Your task to perform on an android device: Search for "usb-a" on newegg, select the first entry, add it to the cart, then select checkout. Image 0: 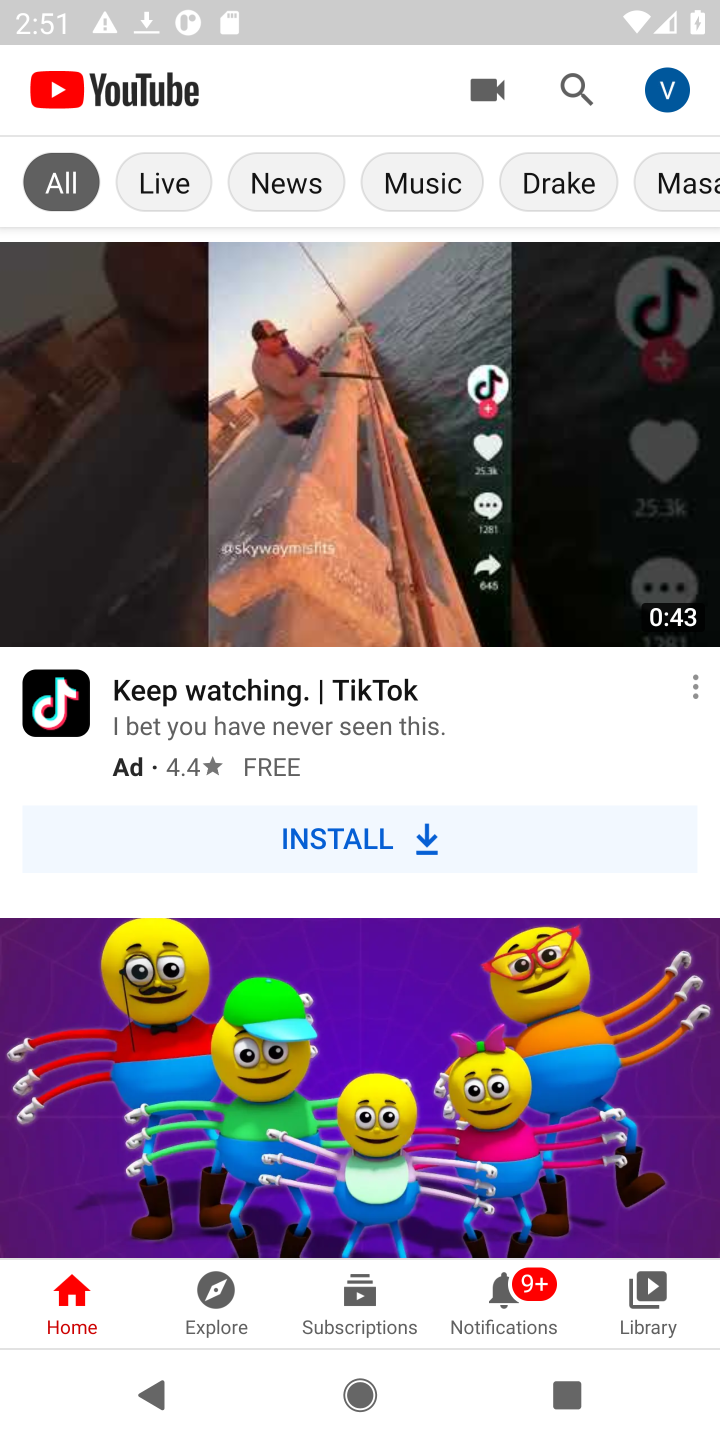
Step 0: press home button
Your task to perform on an android device: Search for "usb-a" on newegg, select the first entry, add it to the cart, then select checkout. Image 1: 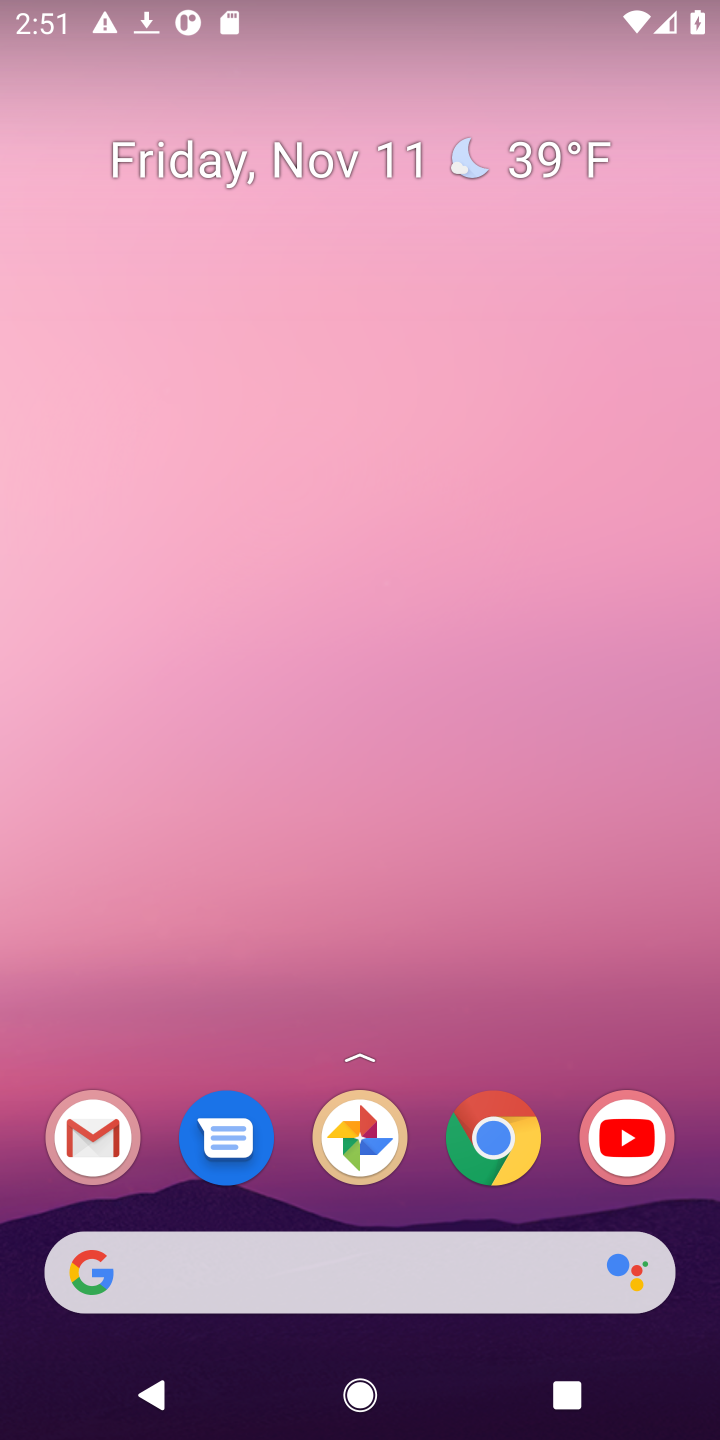
Step 1: click (510, 1141)
Your task to perform on an android device: Search for "usb-a" on newegg, select the first entry, add it to the cart, then select checkout. Image 2: 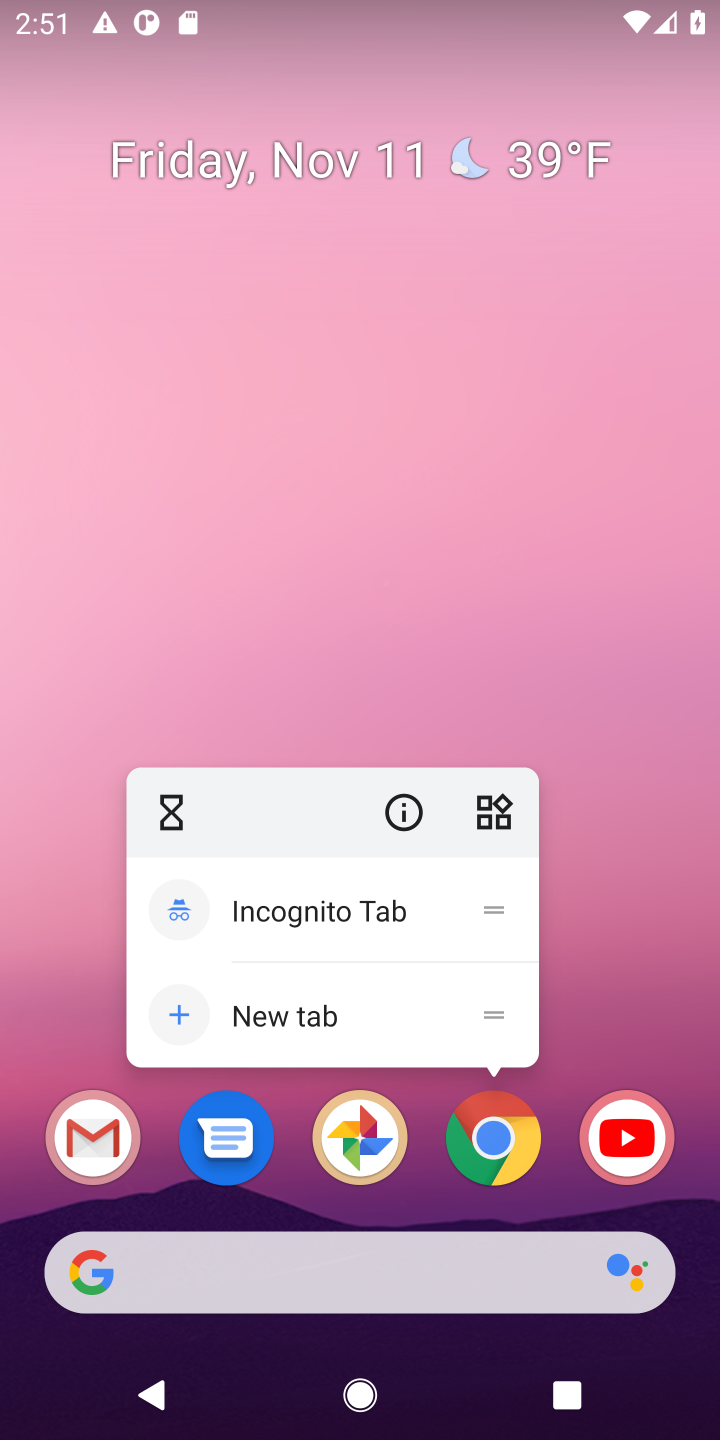
Step 2: click (504, 1144)
Your task to perform on an android device: Search for "usb-a" on newegg, select the first entry, add it to the cart, then select checkout. Image 3: 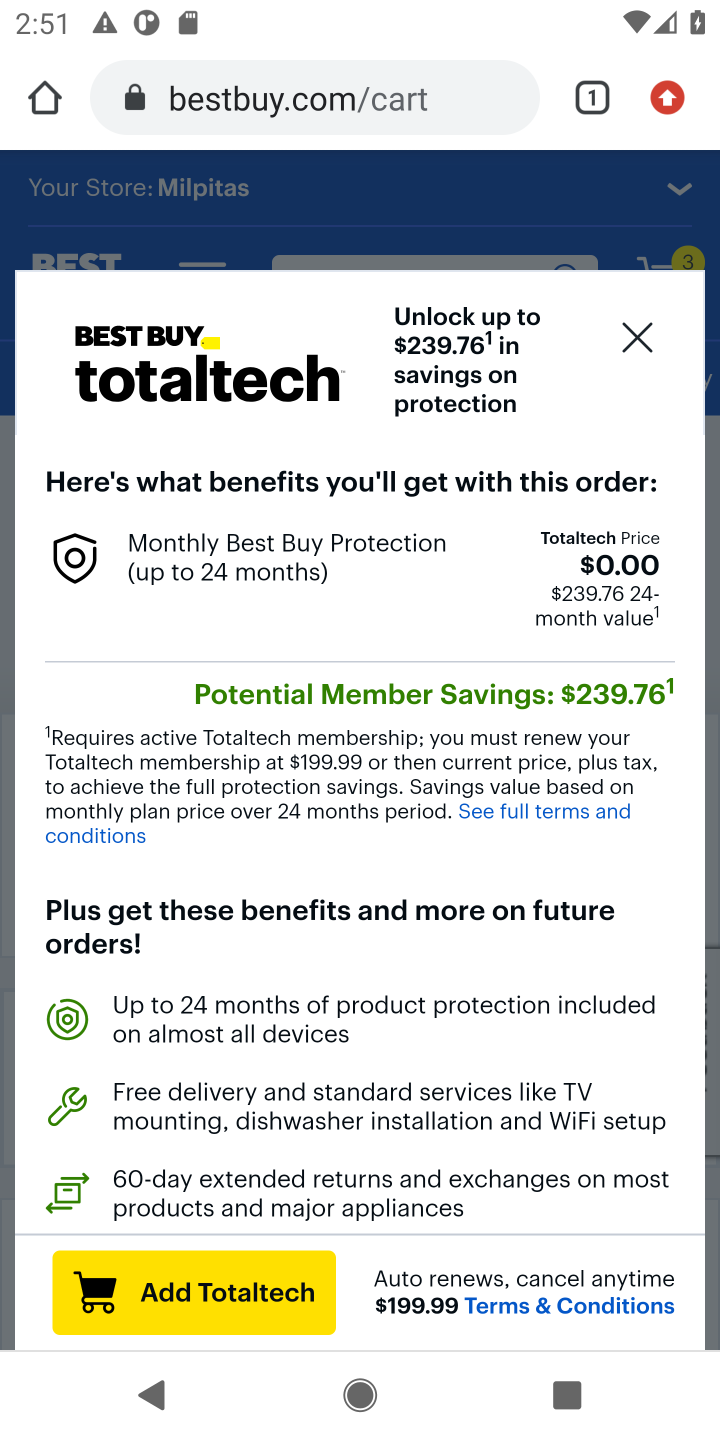
Step 3: click (451, 84)
Your task to perform on an android device: Search for "usb-a" on newegg, select the first entry, add it to the cart, then select checkout. Image 4: 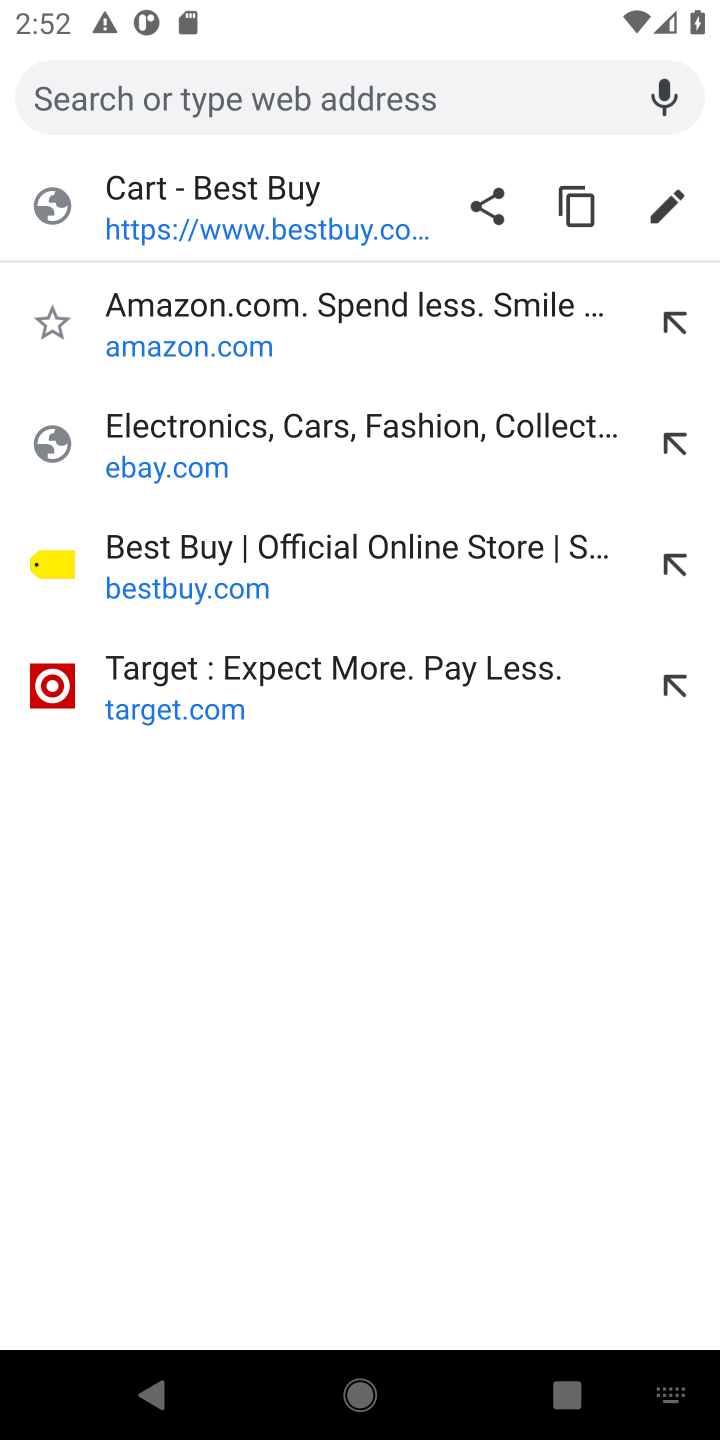
Step 4: press enter
Your task to perform on an android device: Search for "usb-a" on newegg, select the first entry, add it to the cart, then select checkout. Image 5: 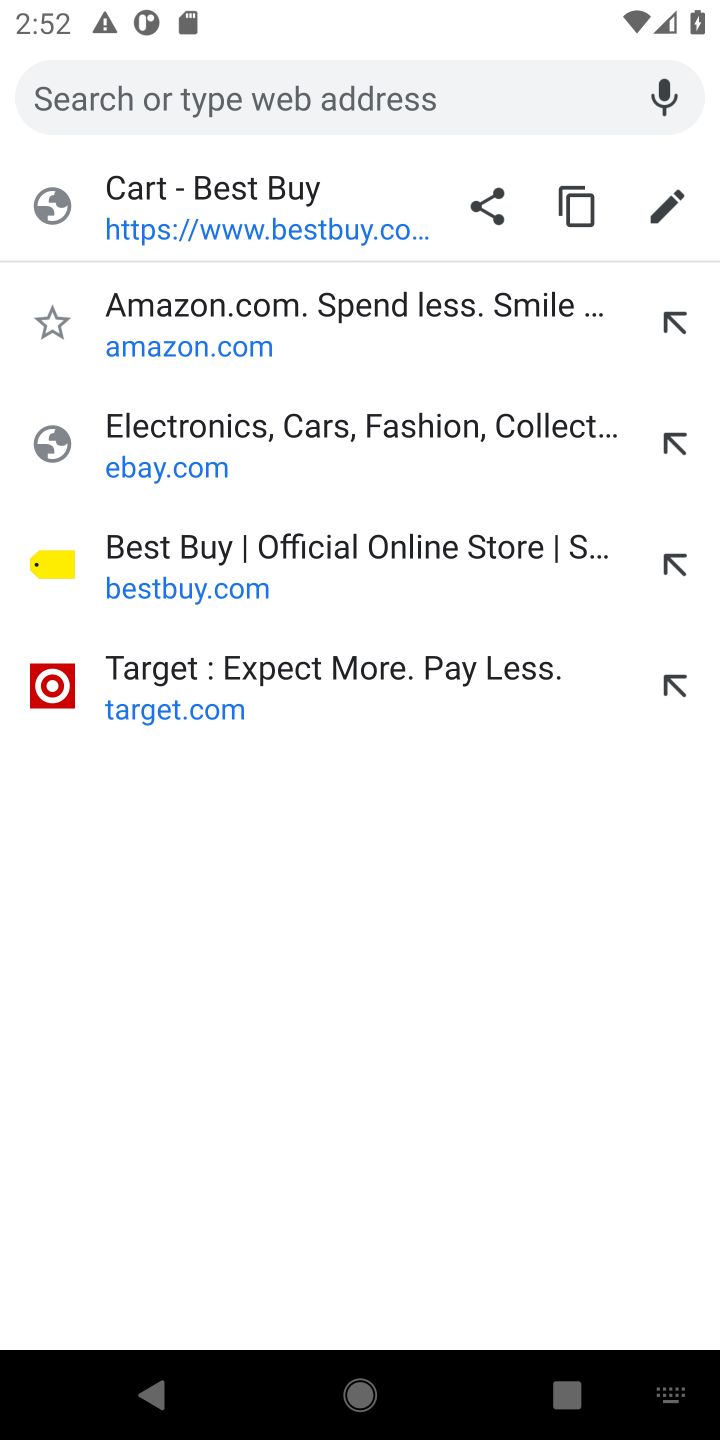
Step 5: type "newegg"
Your task to perform on an android device: Search for "usb-a" on newegg, select the first entry, add it to the cart, then select checkout. Image 6: 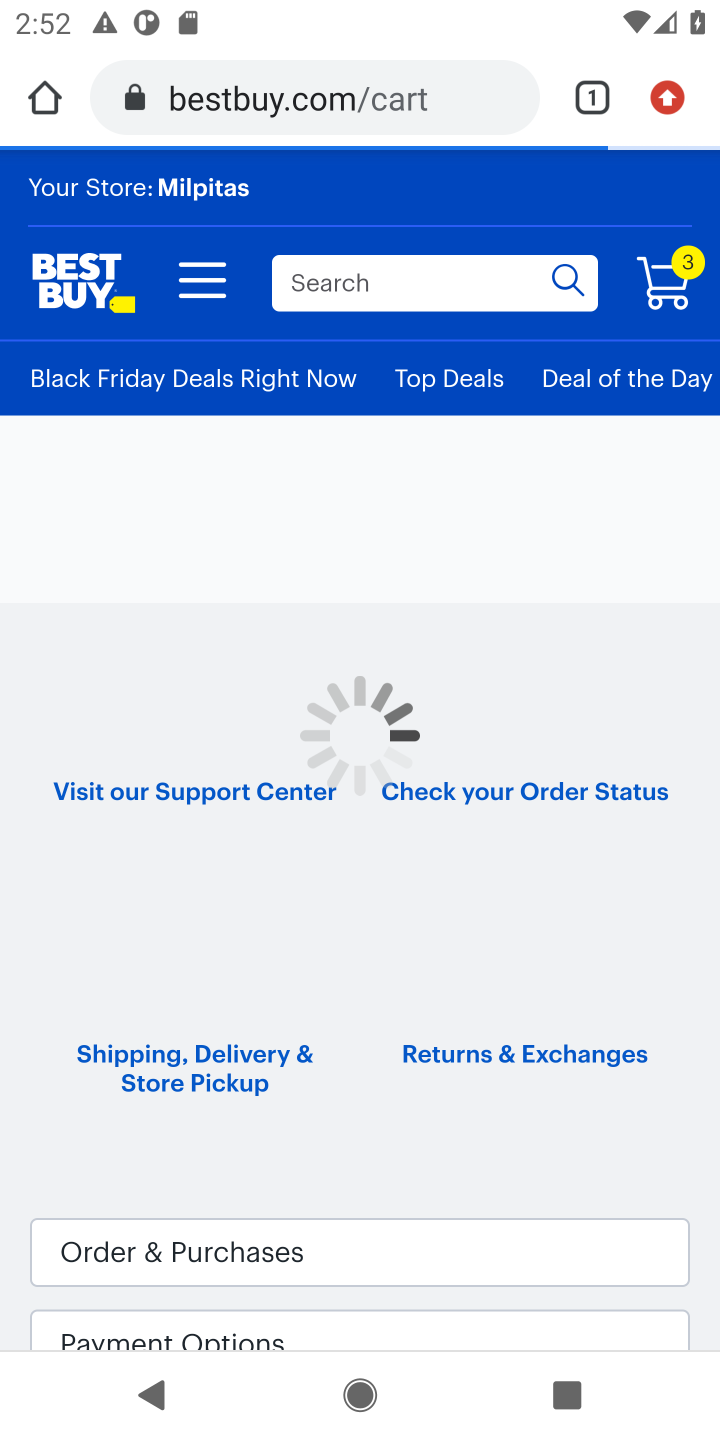
Step 6: click (433, 100)
Your task to perform on an android device: Search for "usb-a" on newegg, select the first entry, add it to the cart, then select checkout. Image 7: 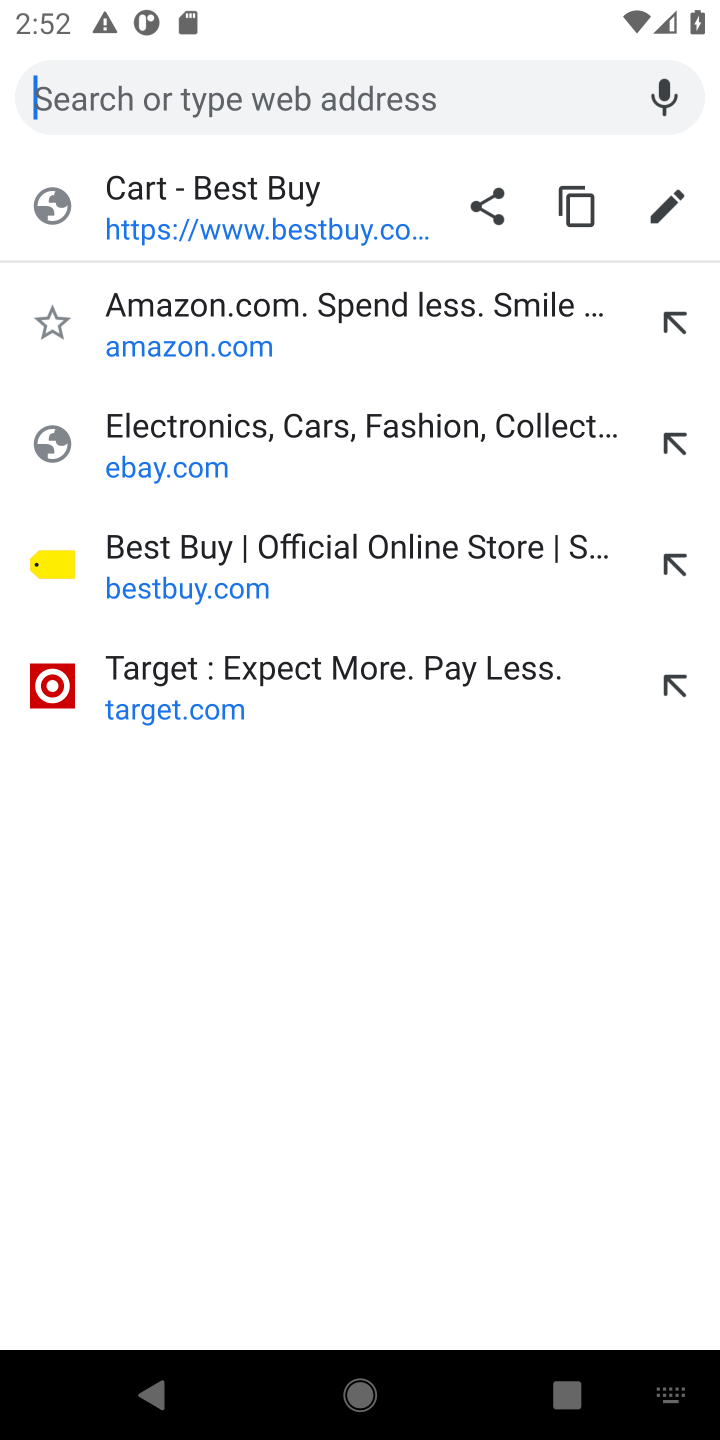
Step 7: press enter
Your task to perform on an android device: Search for "usb-a" on newegg, select the first entry, add it to the cart, then select checkout. Image 8: 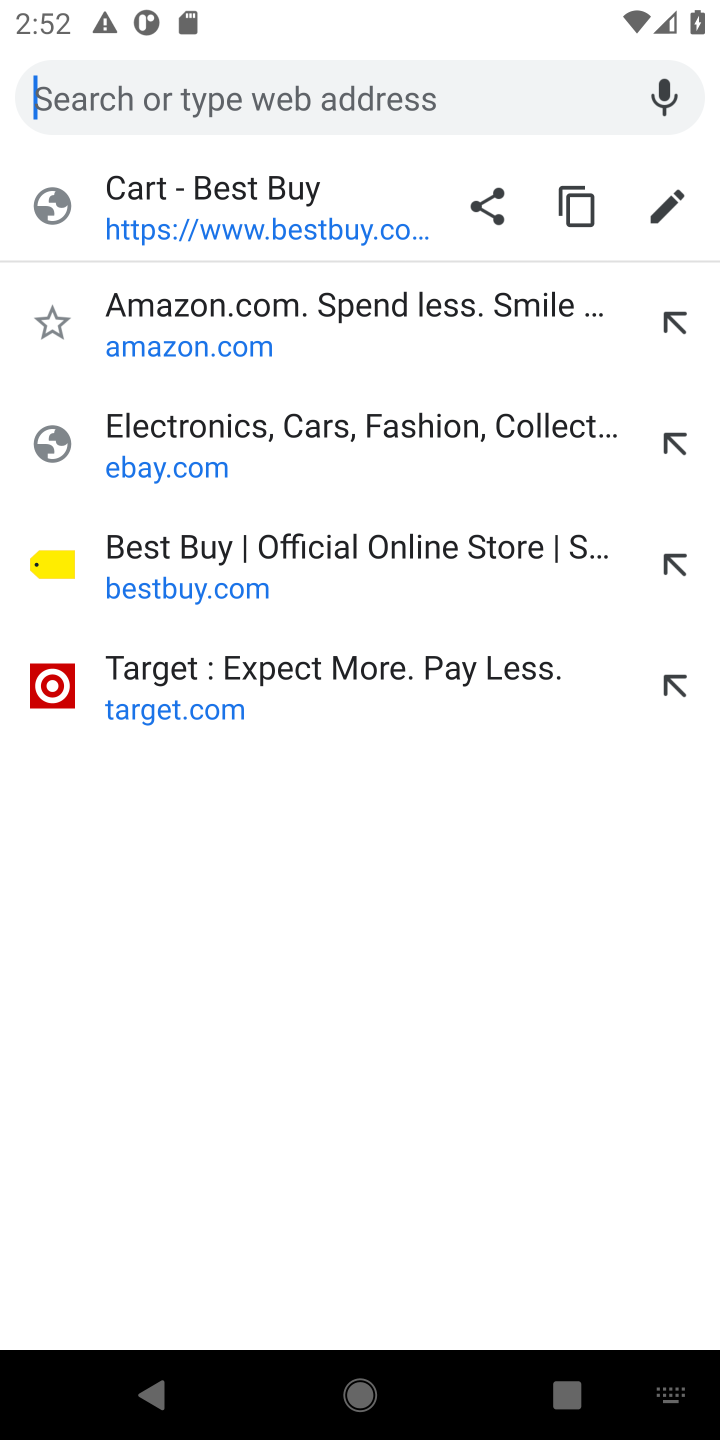
Step 8: type "newegg"
Your task to perform on an android device: Search for "usb-a" on newegg, select the first entry, add it to the cart, then select checkout. Image 9: 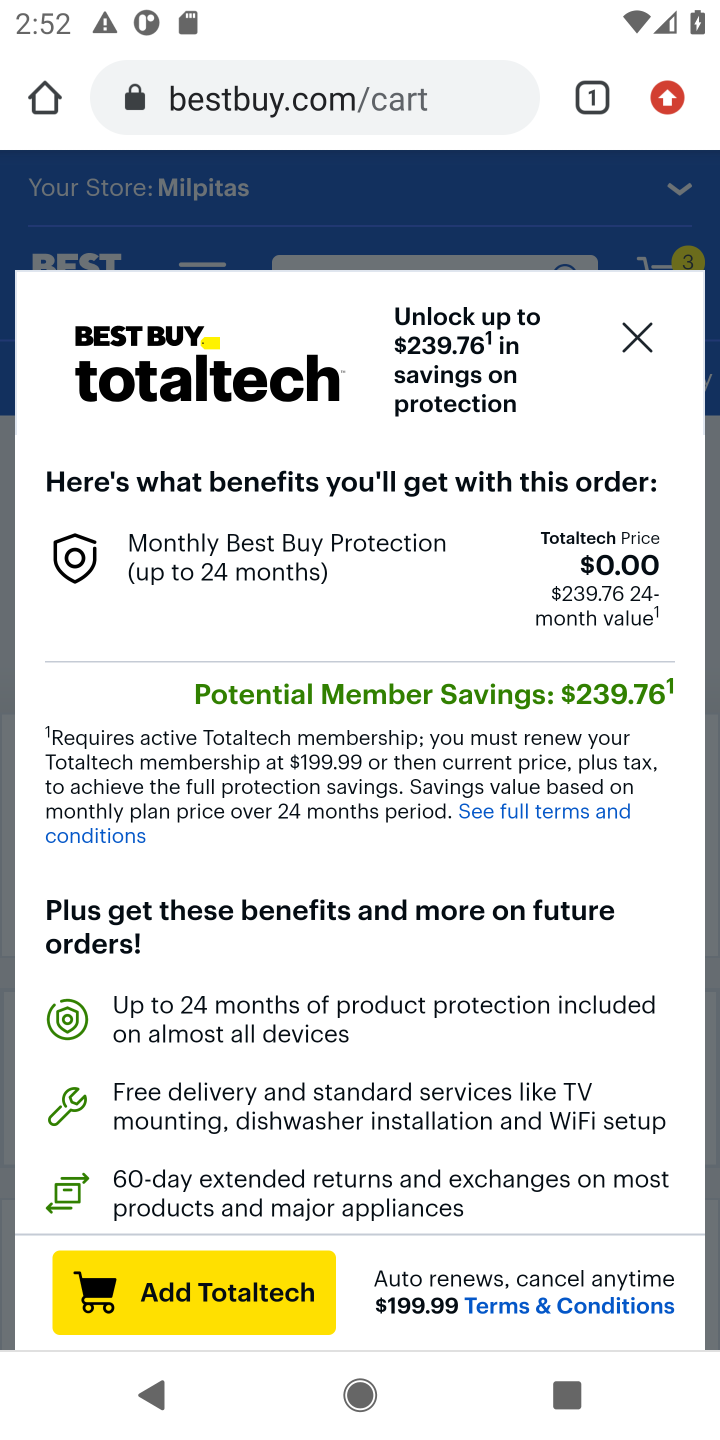
Step 9: click (632, 338)
Your task to perform on an android device: Search for "usb-a" on newegg, select the first entry, add it to the cart, then select checkout. Image 10: 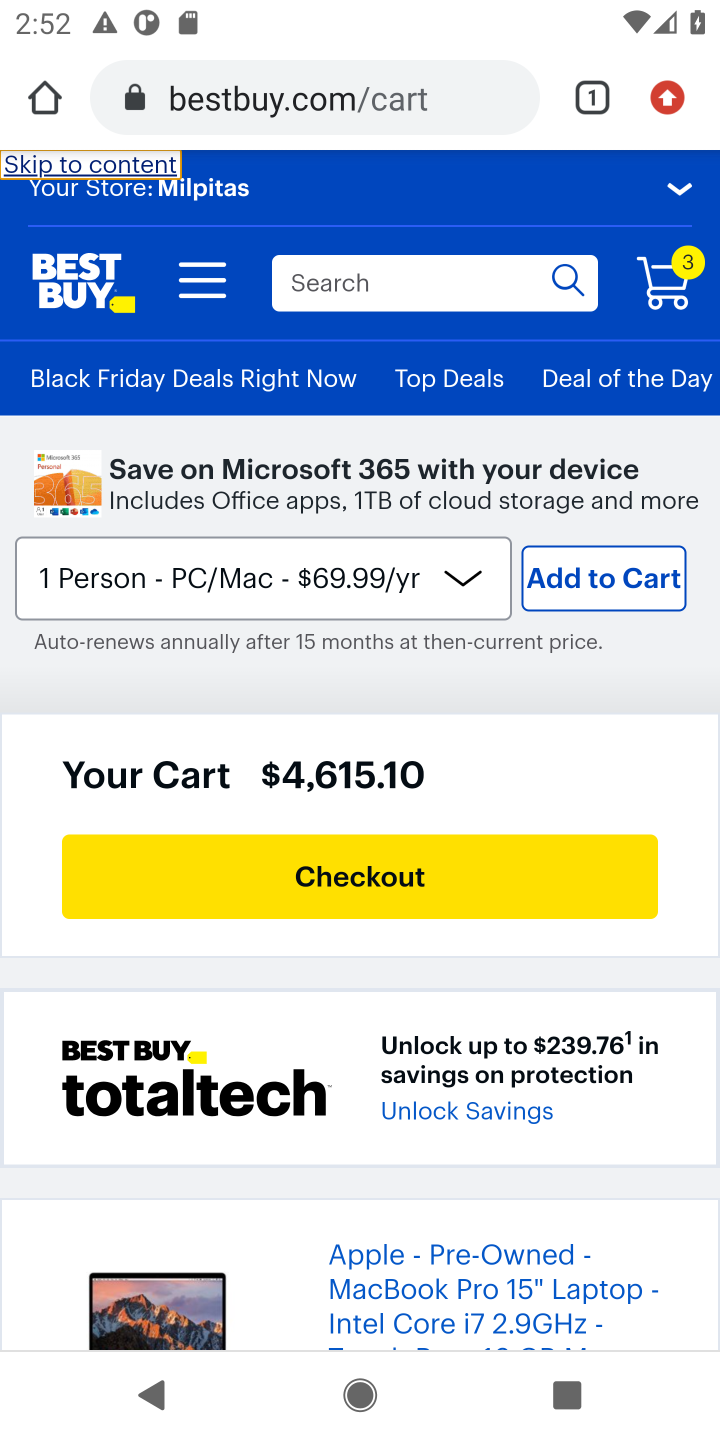
Step 10: click (467, 94)
Your task to perform on an android device: Search for "usb-a" on newegg, select the first entry, add it to the cart, then select checkout. Image 11: 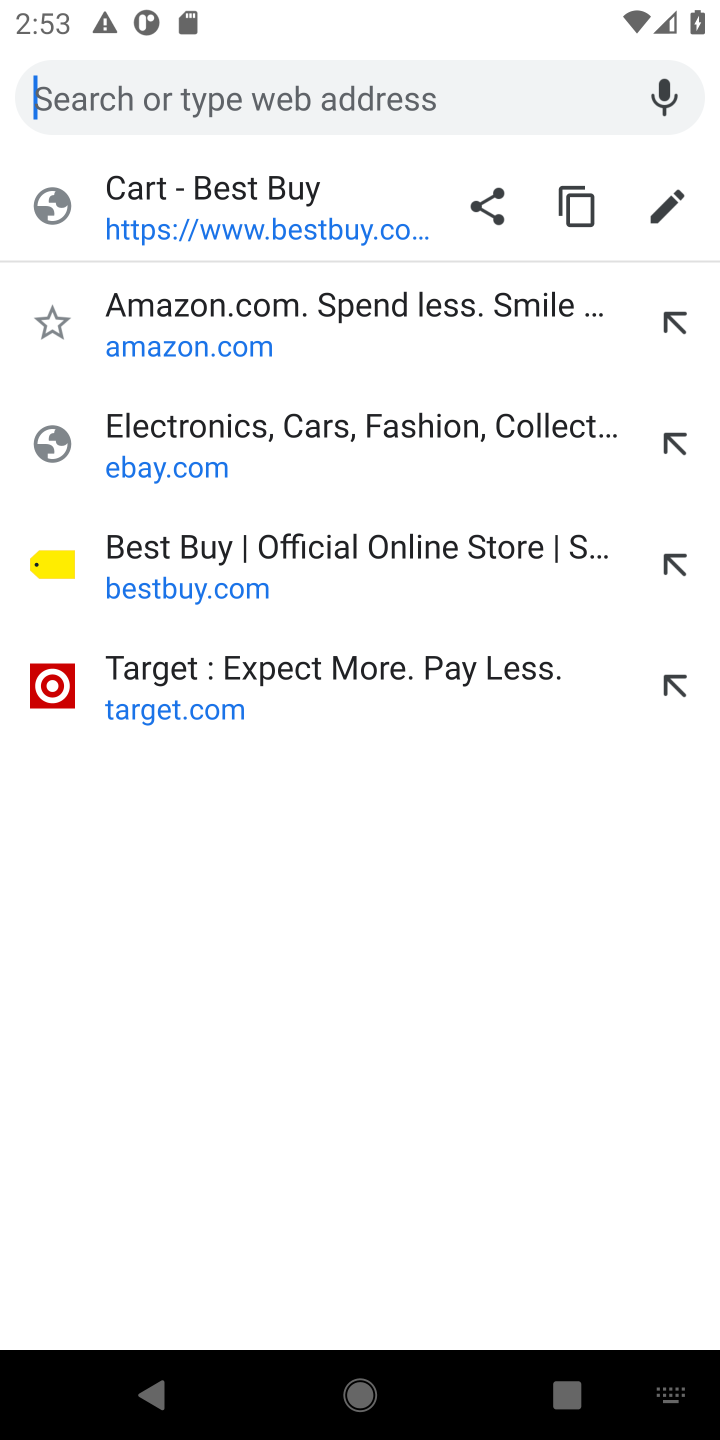
Step 11: press enter
Your task to perform on an android device: Search for "usb-a" on newegg, select the first entry, add it to the cart, then select checkout. Image 12: 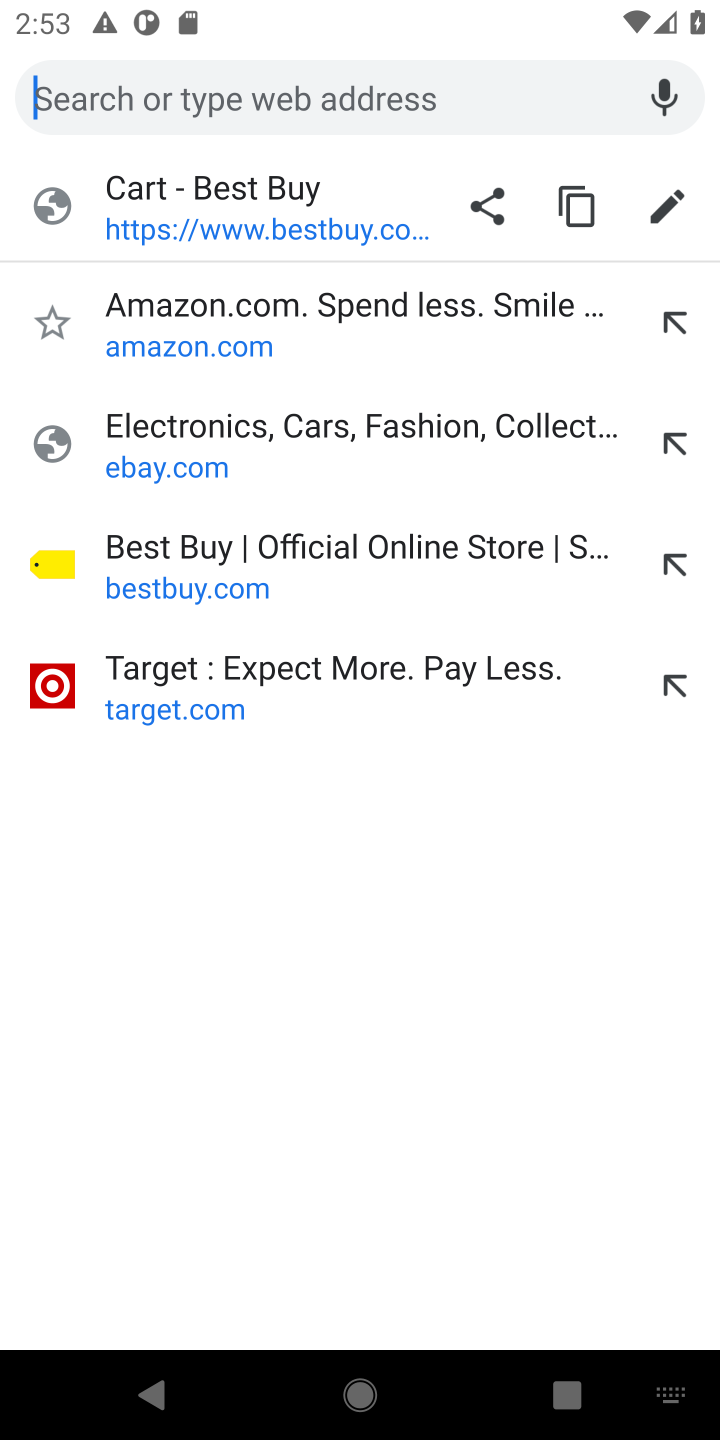
Step 12: type "newegg"
Your task to perform on an android device: Search for "usb-a" on newegg, select the first entry, add it to the cart, then select checkout. Image 13: 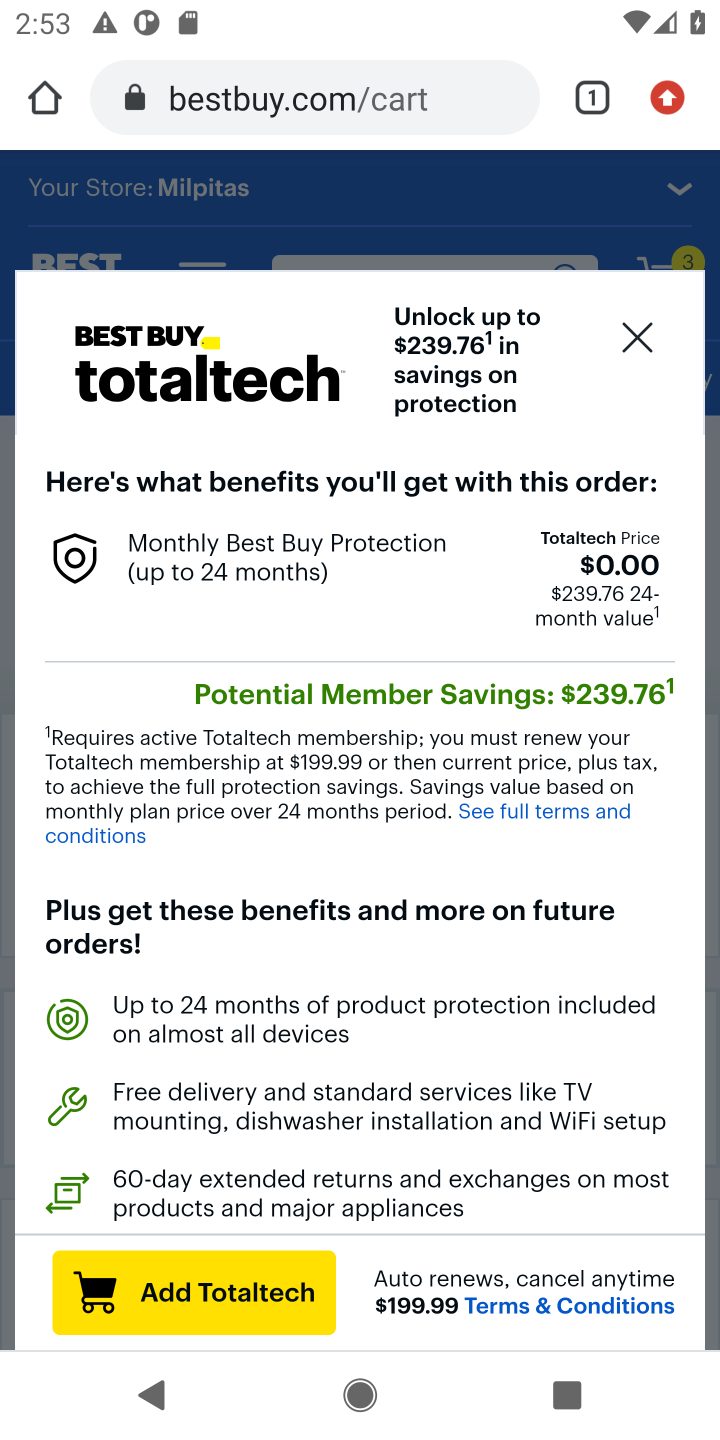
Step 13: click (41, 108)
Your task to perform on an android device: Search for "usb-a" on newegg, select the first entry, add it to the cart, then select checkout. Image 14: 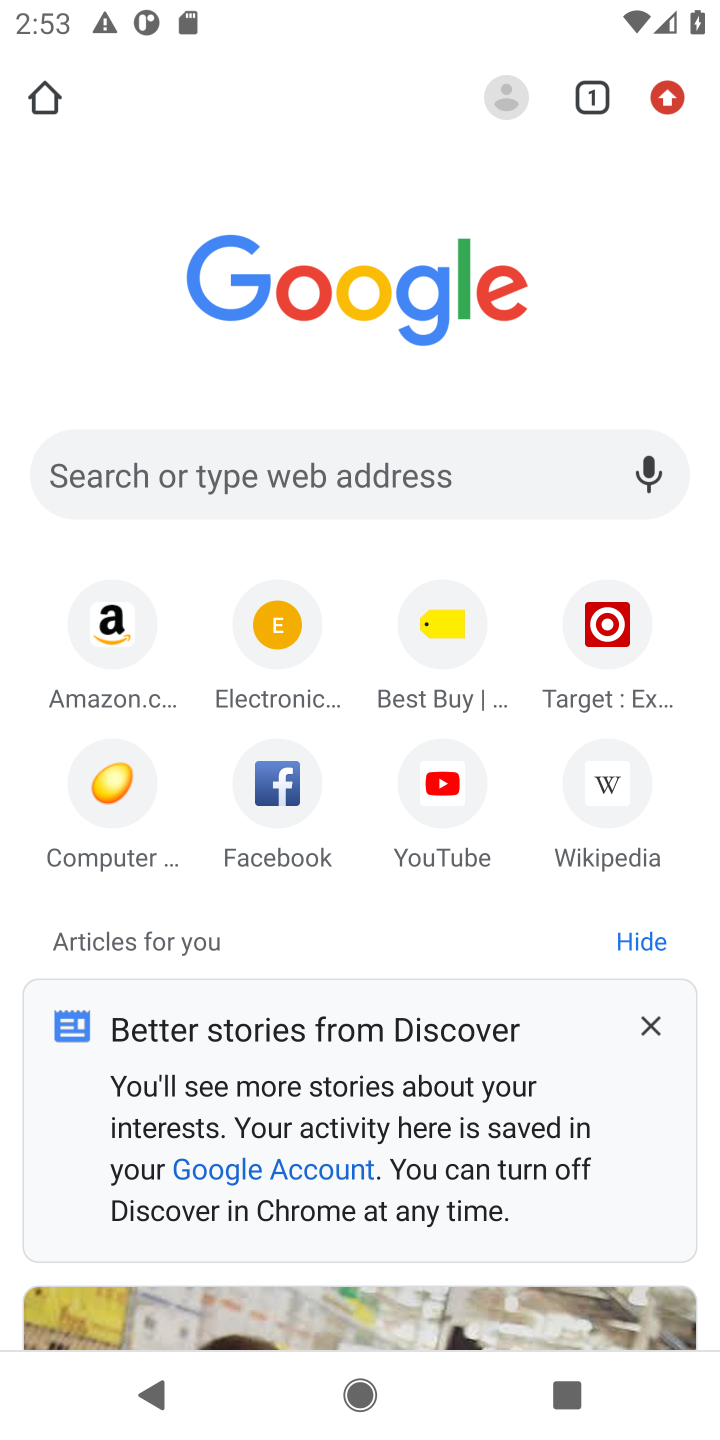
Step 14: click (376, 461)
Your task to perform on an android device: Search for "usb-a" on newegg, select the first entry, add it to the cart, then select checkout. Image 15: 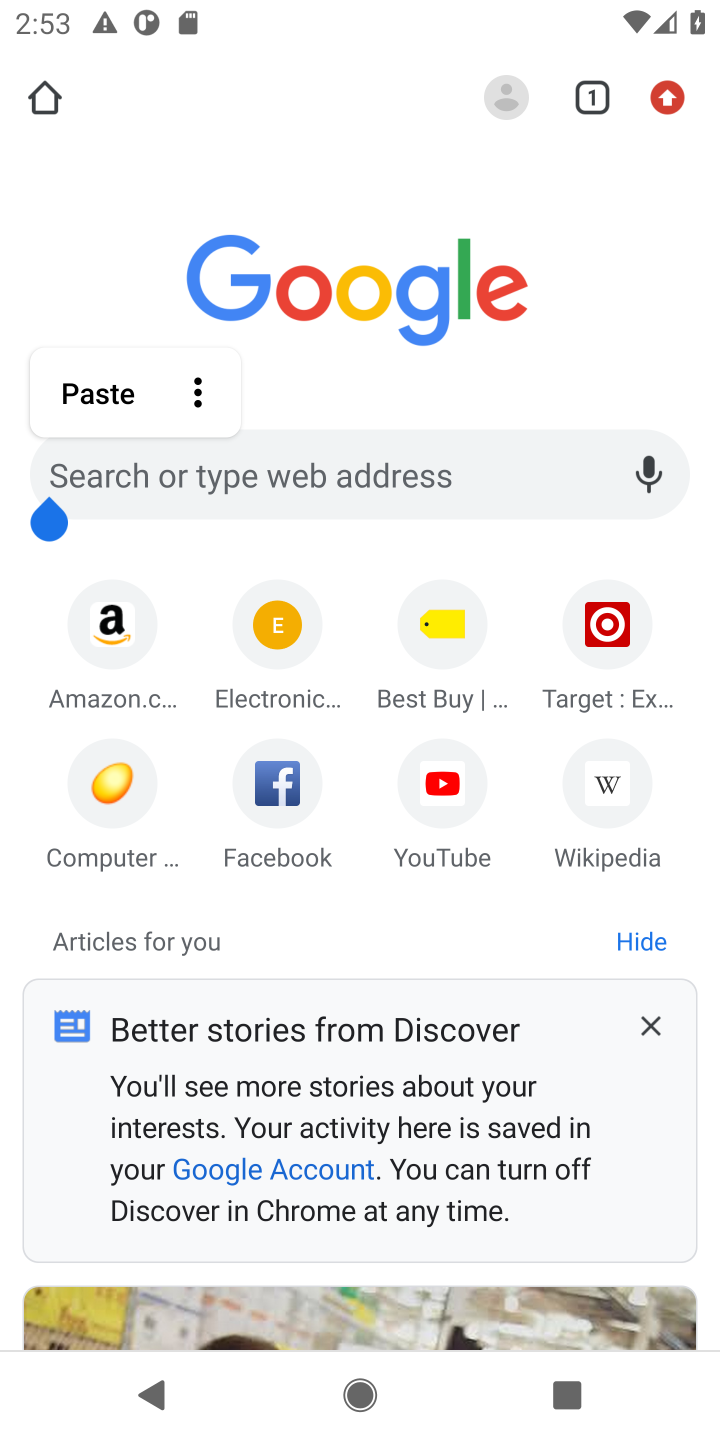
Step 15: type "newegg"
Your task to perform on an android device: Search for "usb-a" on newegg, select the first entry, add it to the cart, then select checkout. Image 16: 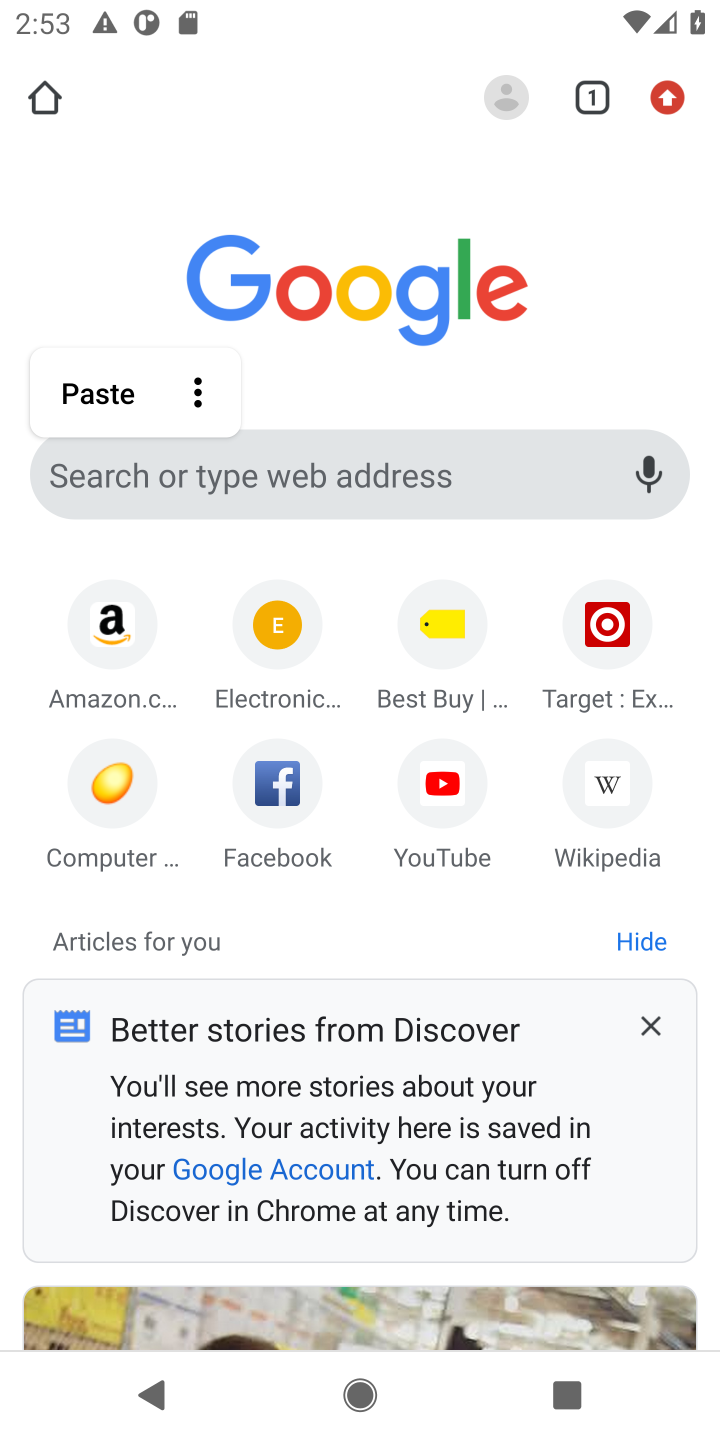
Step 16: press enter
Your task to perform on an android device: Search for "usb-a" on newegg, select the first entry, add it to the cart, then select checkout. Image 17: 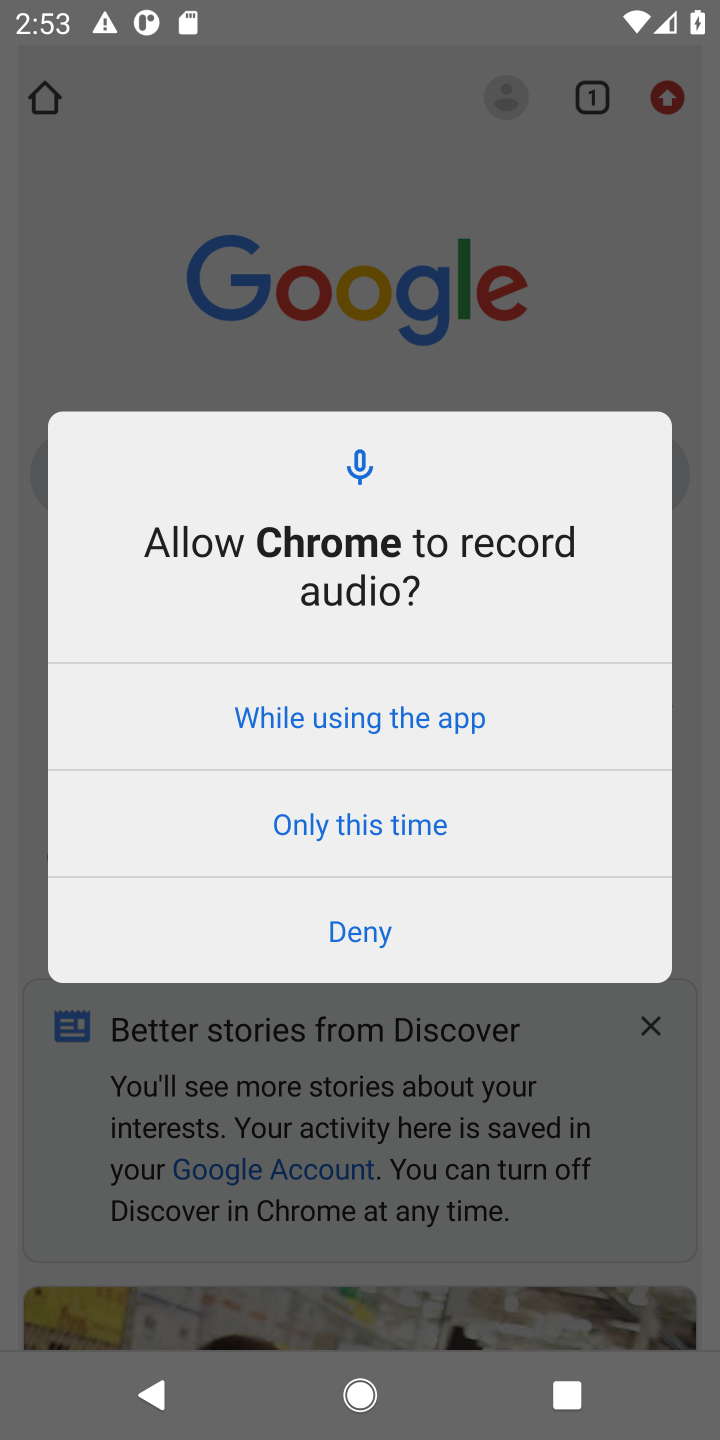
Step 17: click (456, 717)
Your task to perform on an android device: Search for "usb-a" on newegg, select the first entry, add it to the cart, then select checkout. Image 18: 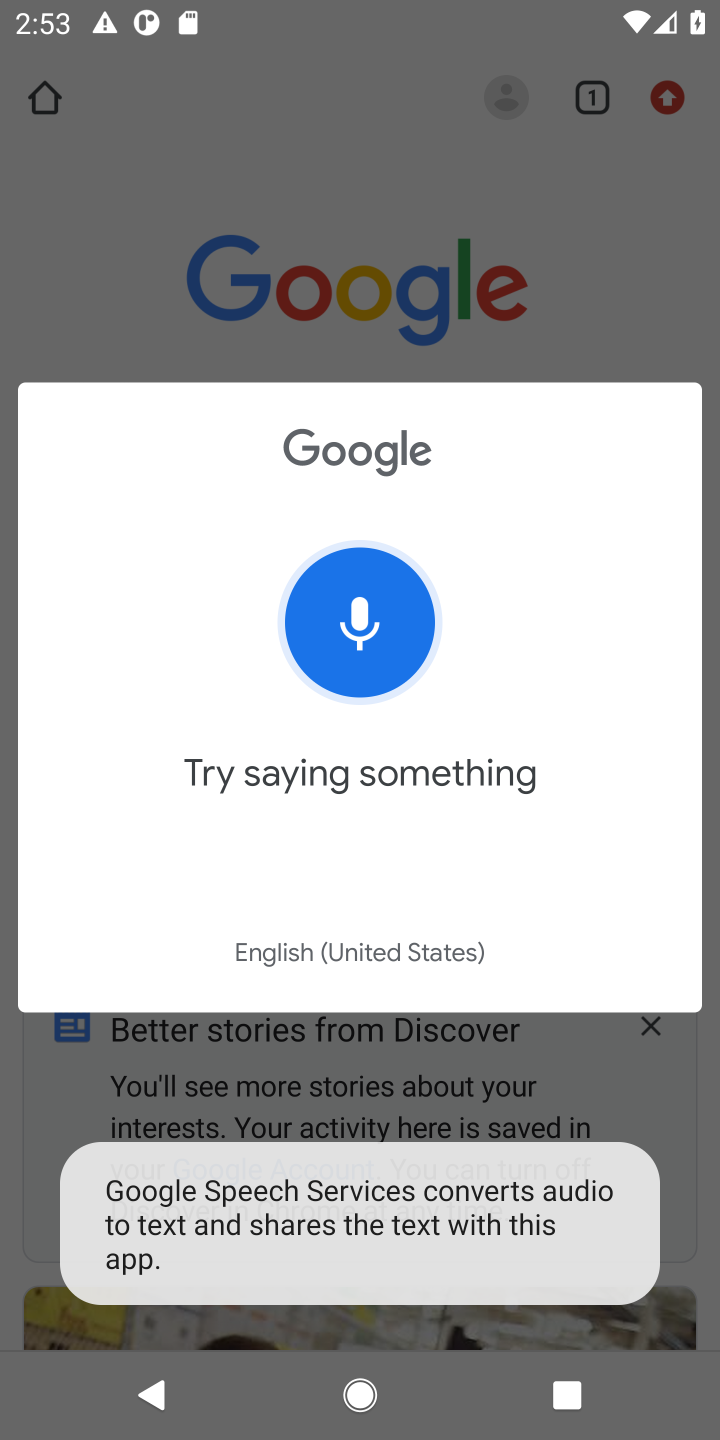
Step 18: click (499, 1050)
Your task to perform on an android device: Search for "usb-a" on newegg, select the first entry, add it to the cart, then select checkout. Image 19: 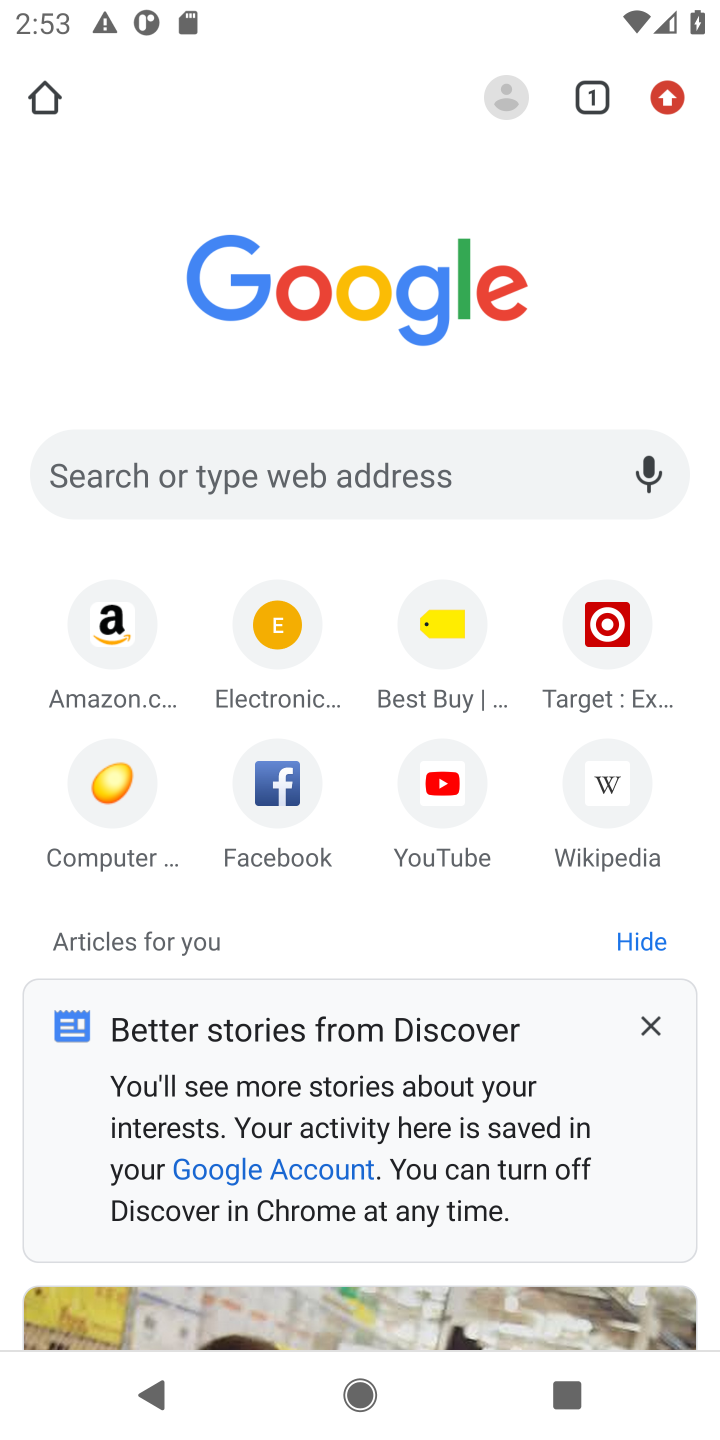
Step 19: click (276, 455)
Your task to perform on an android device: Search for "usb-a" on newegg, select the first entry, add it to the cart, then select checkout. Image 20: 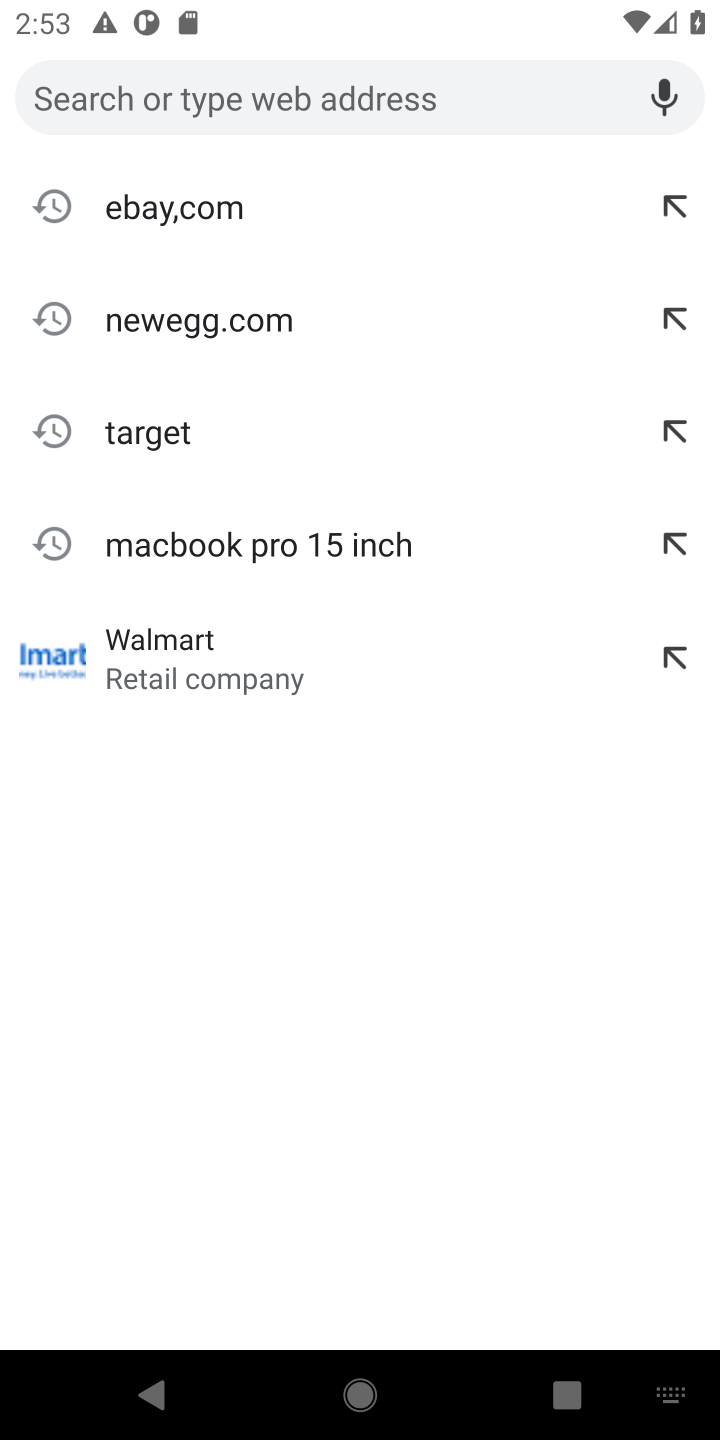
Step 20: click (249, 313)
Your task to perform on an android device: Search for "usb-a" on newegg, select the first entry, add it to the cart, then select checkout. Image 21: 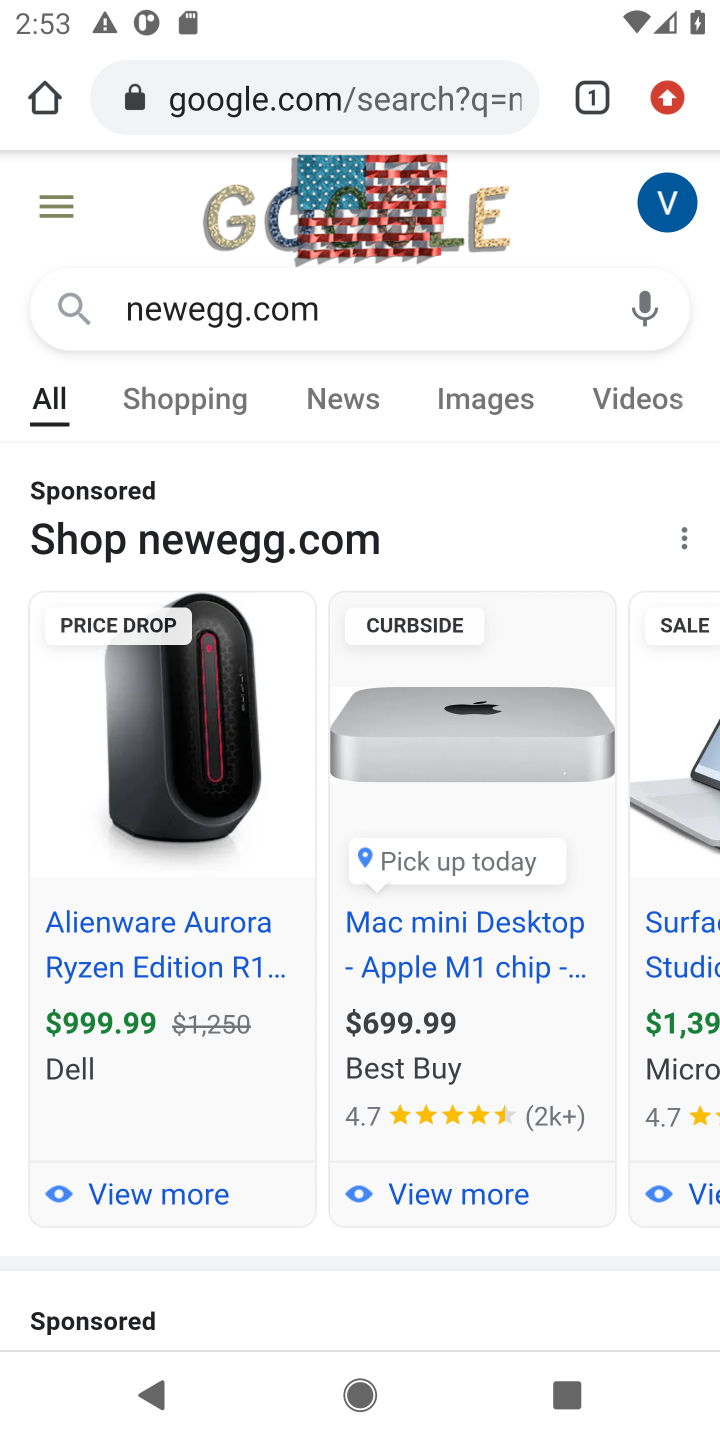
Step 21: drag from (388, 1091) to (317, 615)
Your task to perform on an android device: Search for "usb-a" on newegg, select the first entry, add it to the cart, then select checkout. Image 22: 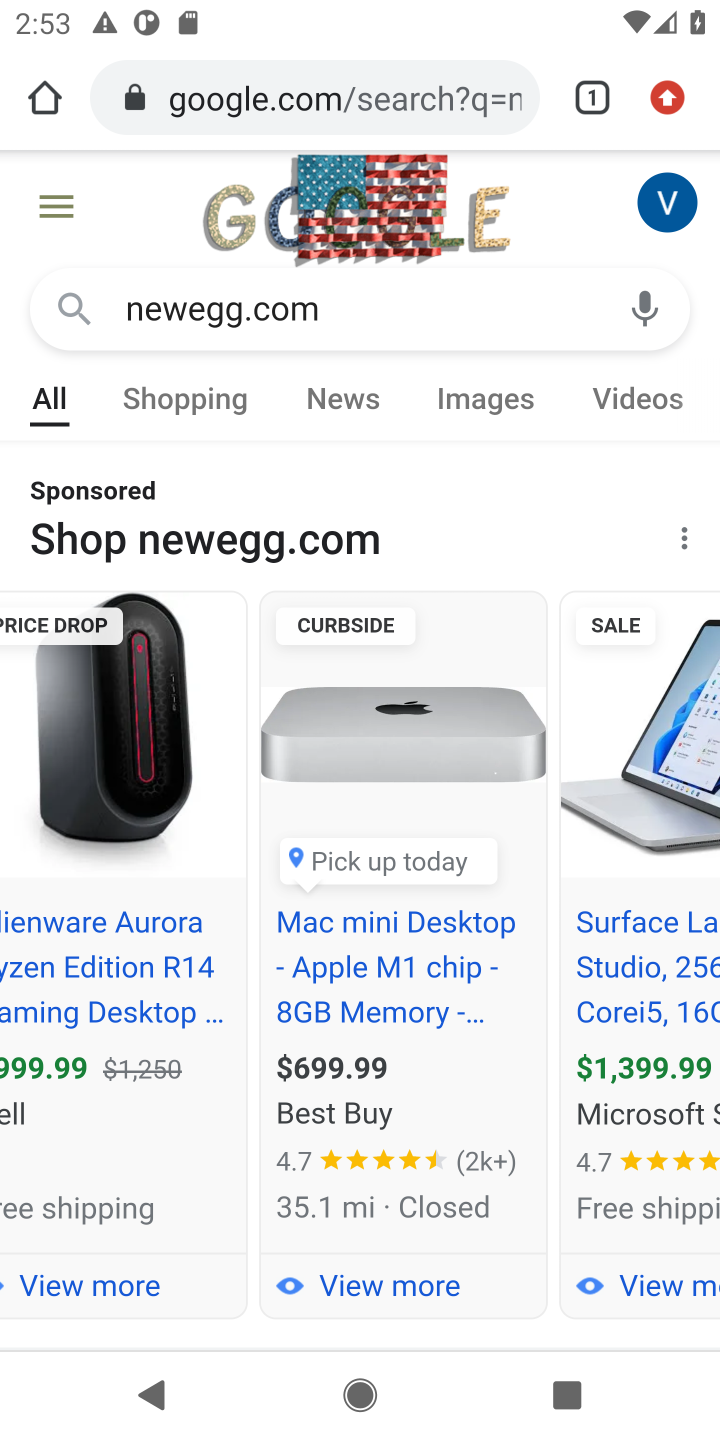
Step 22: drag from (336, 978) to (326, 571)
Your task to perform on an android device: Search for "usb-a" on newegg, select the first entry, add it to the cart, then select checkout. Image 23: 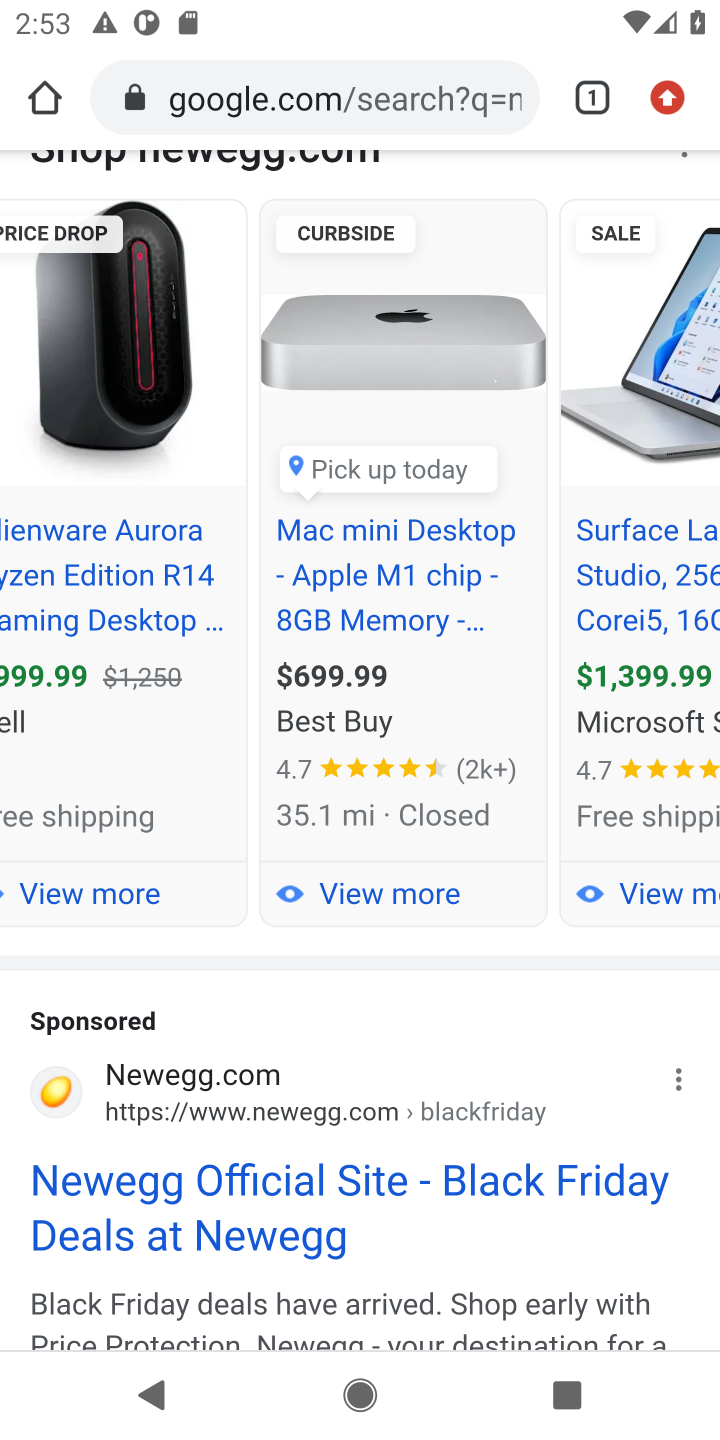
Step 23: click (375, 1112)
Your task to perform on an android device: Search for "usb-a" on newegg, select the first entry, add it to the cart, then select checkout. Image 24: 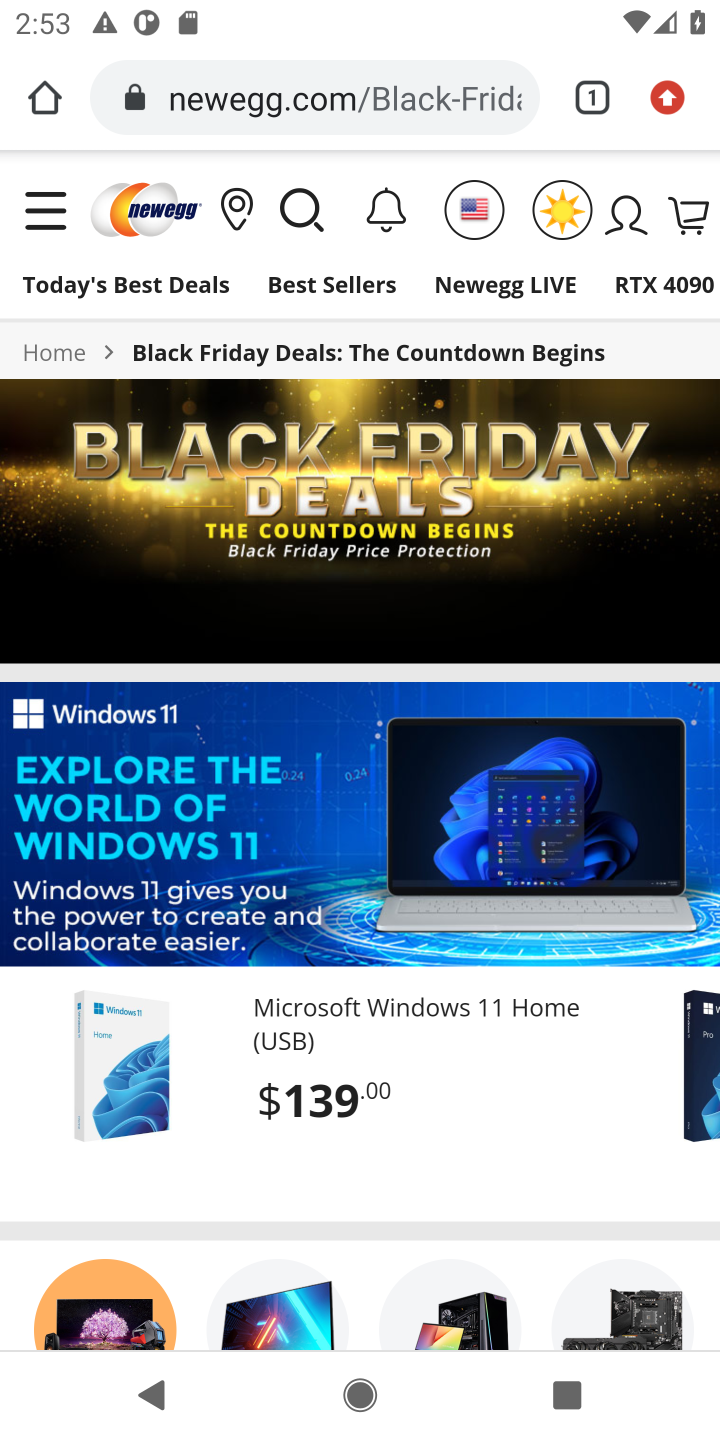
Step 24: click (306, 203)
Your task to perform on an android device: Search for "usb-a" on newegg, select the first entry, add it to the cart, then select checkout. Image 25: 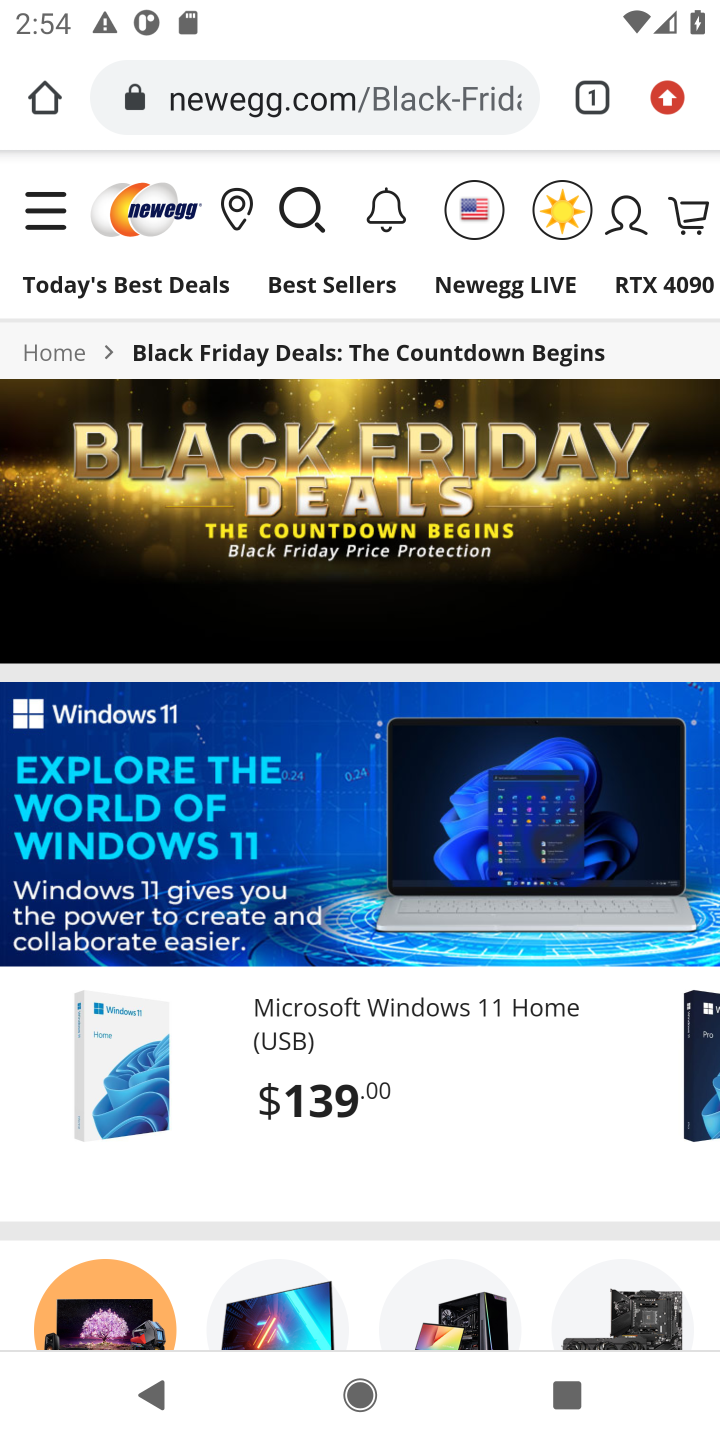
Step 25: click (299, 203)
Your task to perform on an android device: Search for "usb-a" on newegg, select the first entry, add it to the cart, then select checkout. Image 26: 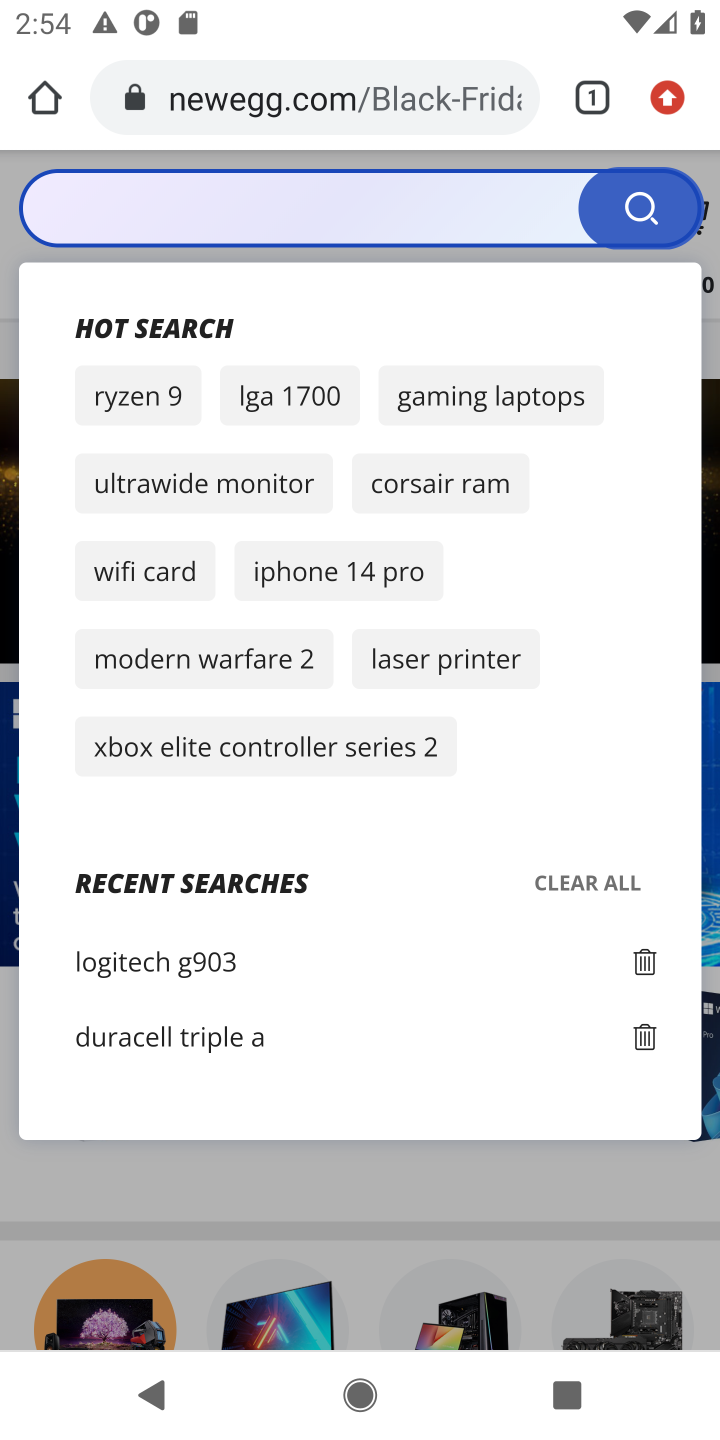
Step 26: click (484, 204)
Your task to perform on an android device: Search for "usb-a" on newegg, select the first entry, add it to the cart, then select checkout. Image 27: 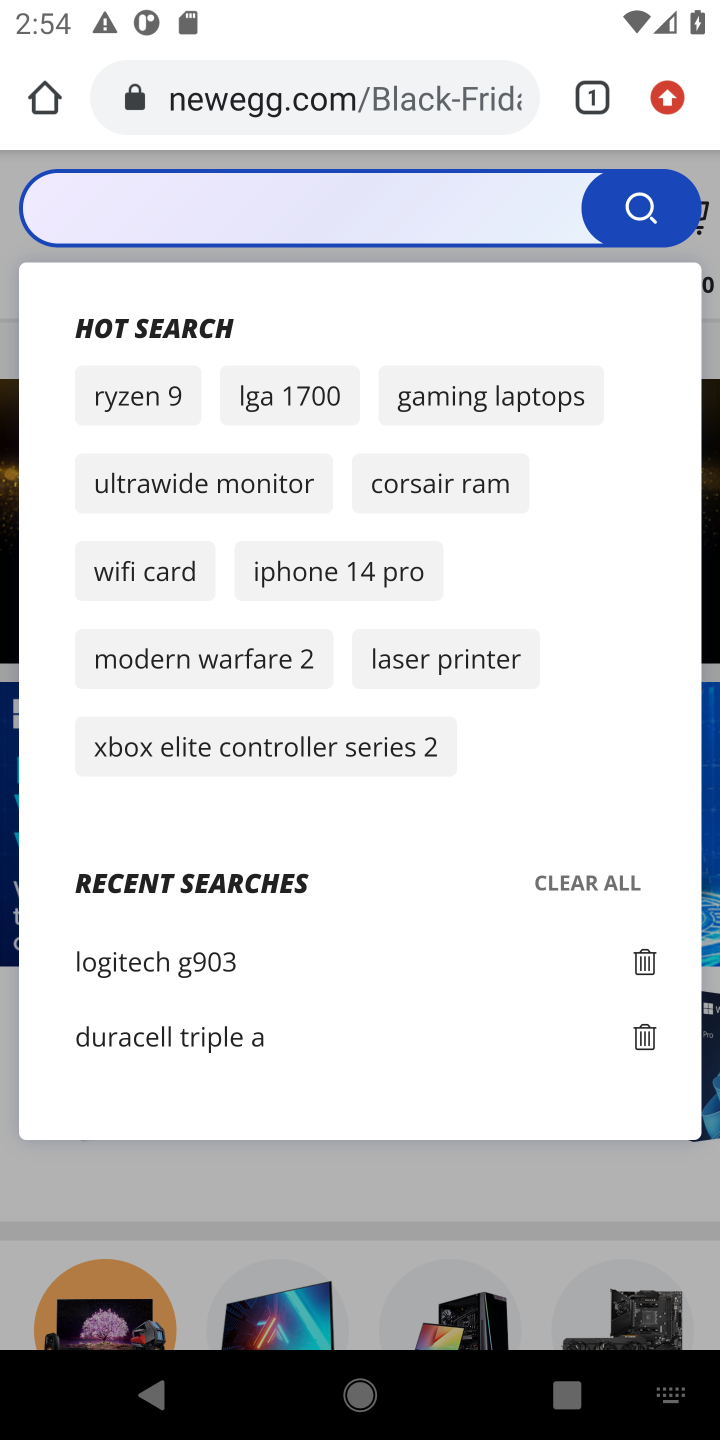
Step 27: press enter
Your task to perform on an android device: Search for "usb-a" on newegg, select the first entry, add it to the cart, then select checkout. Image 28: 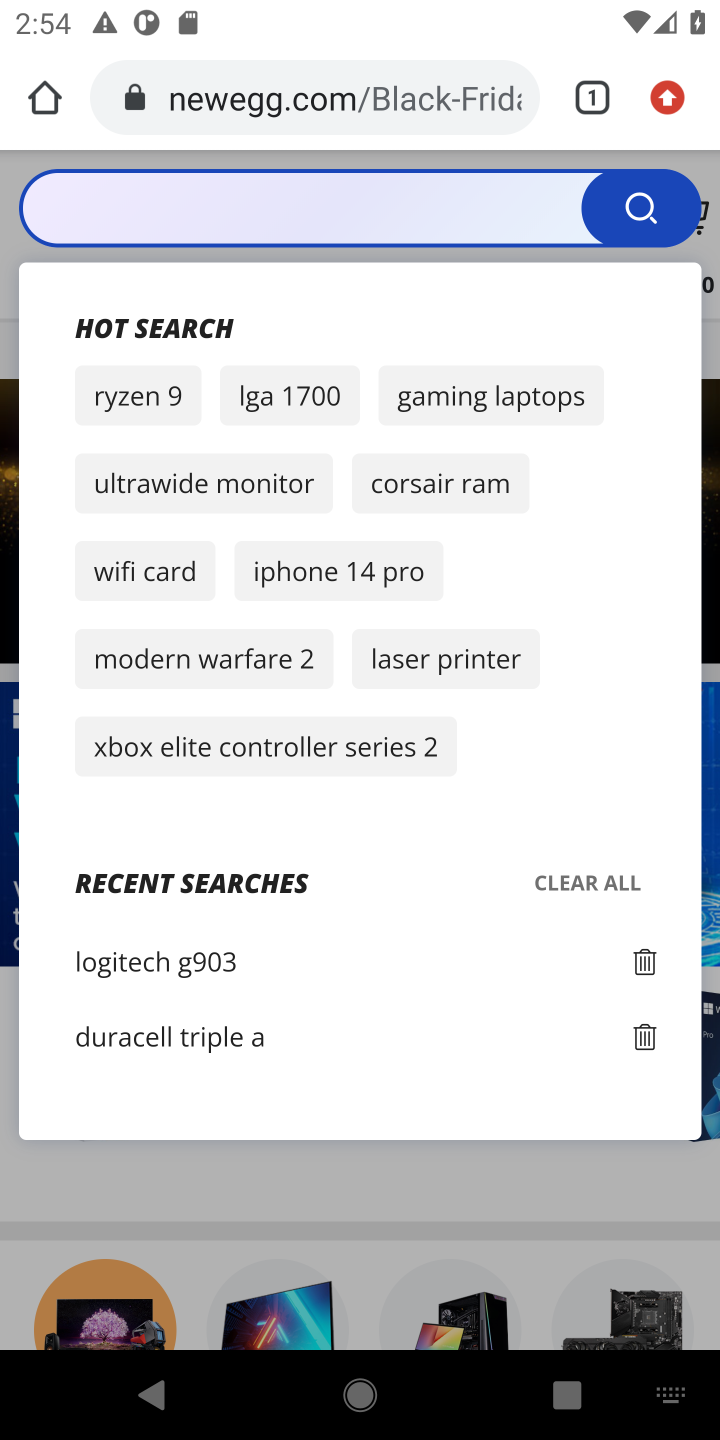
Step 28: type "usb-a"
Your task to perform on an android device: Search for "usb-a" on newegg, select the first entry, add it to the cart, then select checkout. Image 29: 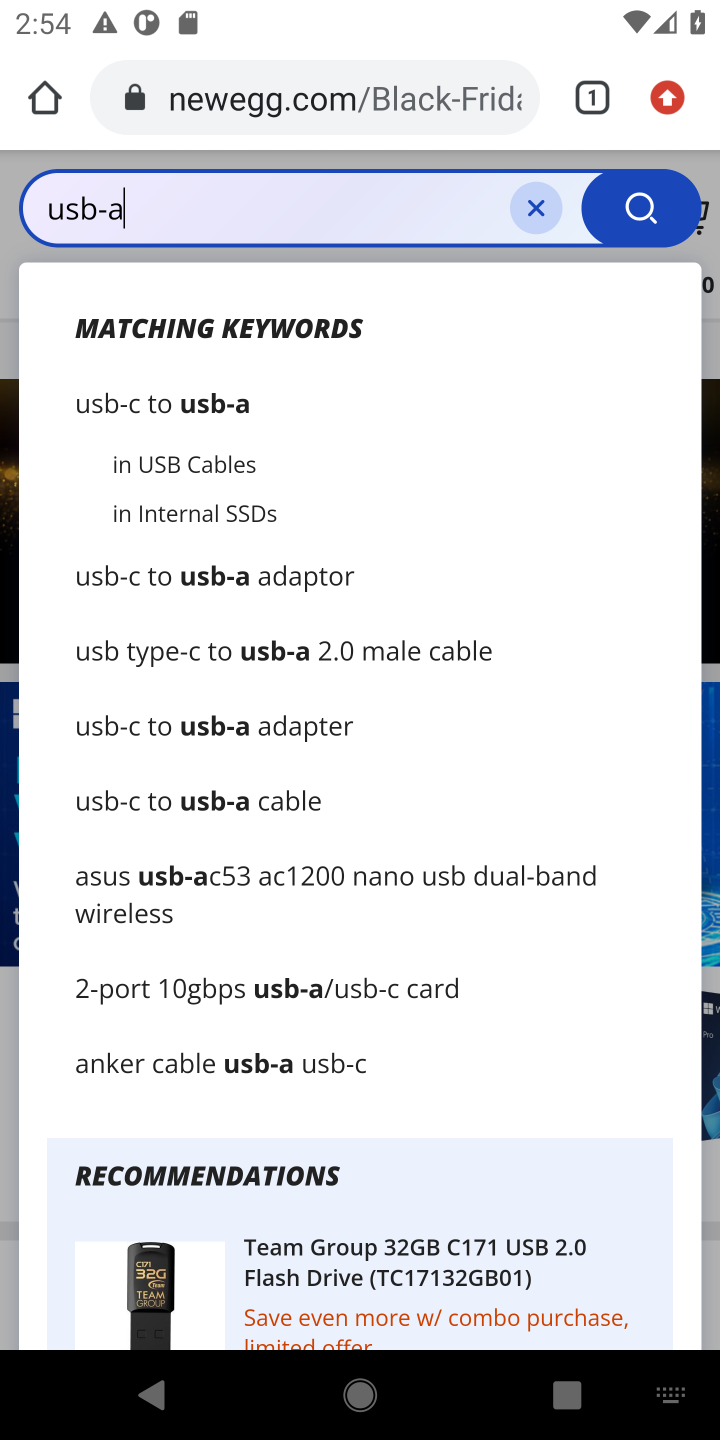
Step 29: click (640, 203)
Your task to perform on an android device: Search for "usb-a" on newegg, select the first entry, add it to the cart, then select checkout. Image 30: 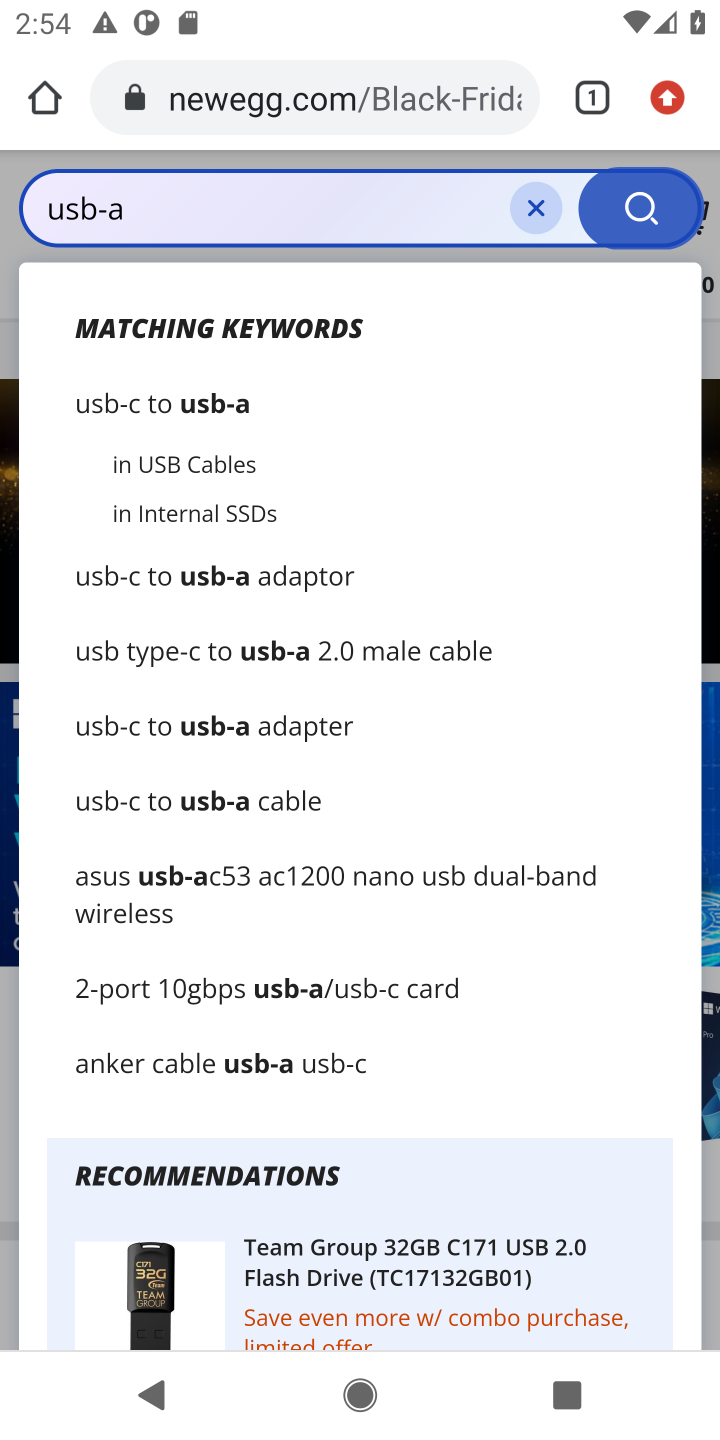
Step 30: click (640, 203)
Your task to perform on an android device: Search for "usb-a" on newegg, select the first entry, add it to the cart, then select checkout. Image 31: 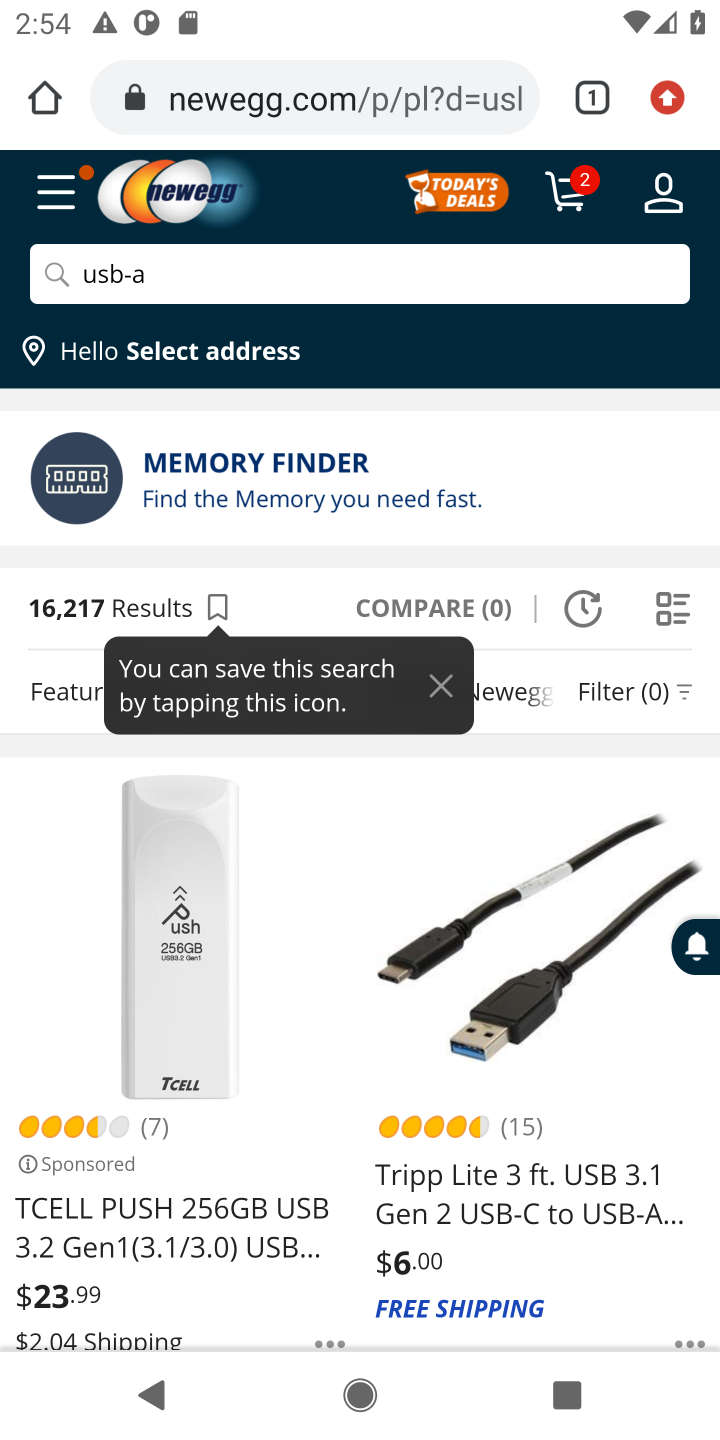
Step 31: task complete